Your task to perform on an android device: check data usage Image 0: 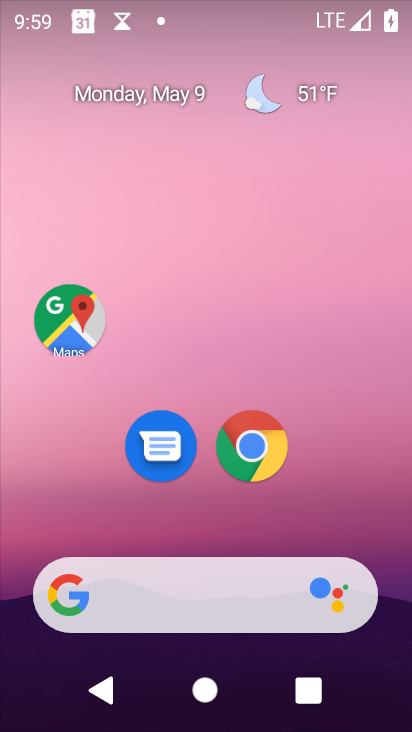
Step 0: drag from (310, 530) to (310, 90)
Your task to perform on an android device: check data usage Image 1: 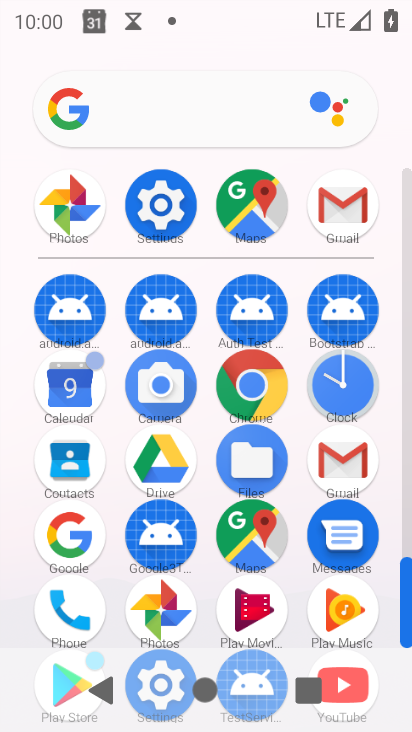
Step 1: click (171, 208)
Your task to perform on an android device: check data usage Image 2: 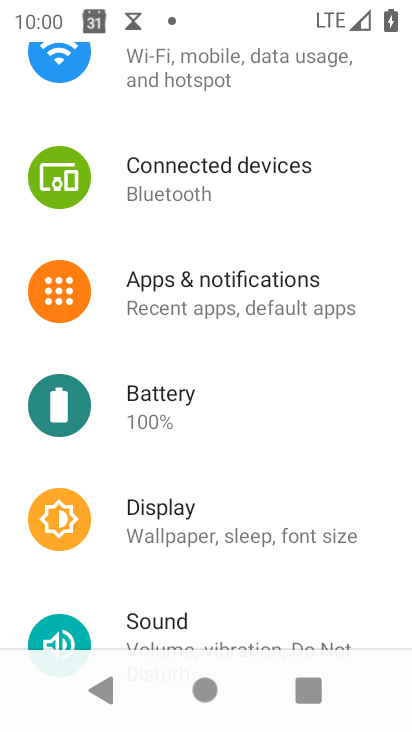
Step 2: drag from (280, 199) to (269, 410)
Your task to perform on an android device: check data usage Image 3: 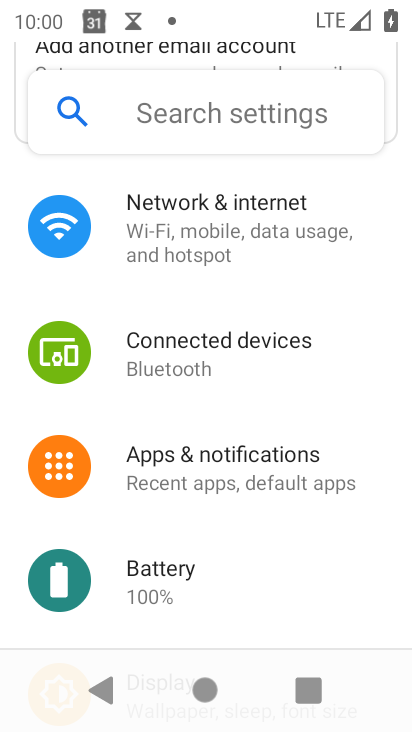
Step 3: click (214, 248)
Your task to perform on an android device: check data usage Image 4: 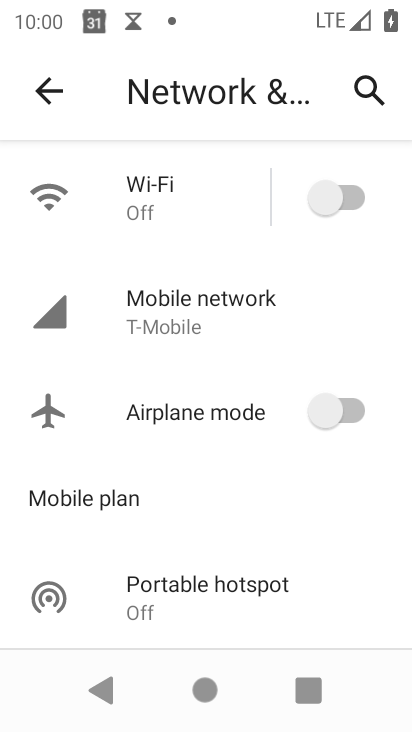
Step 4: click (202, 325)
Your task to perform on an android device: check data usage Image 5: 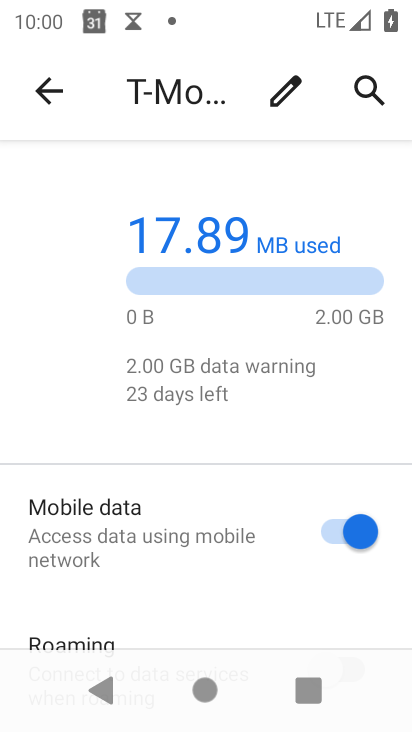
Step 5: drag from (240, 592) to (240, 241)
Your task to perform on an android device: check data usage Image 6: 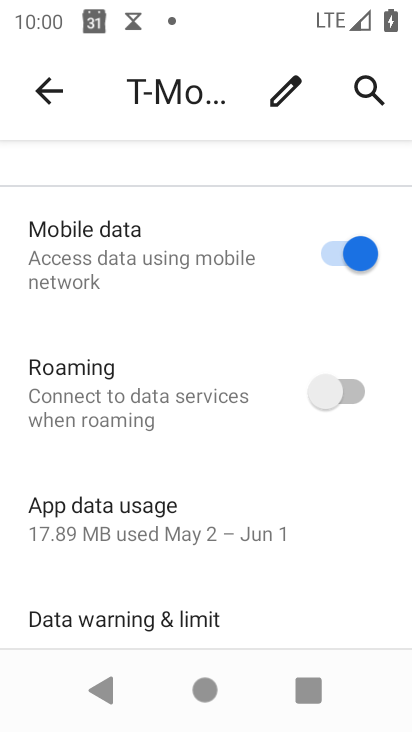
Step 6: click (203, 536)
Your task to perform on an android device: check data usage Image 7: 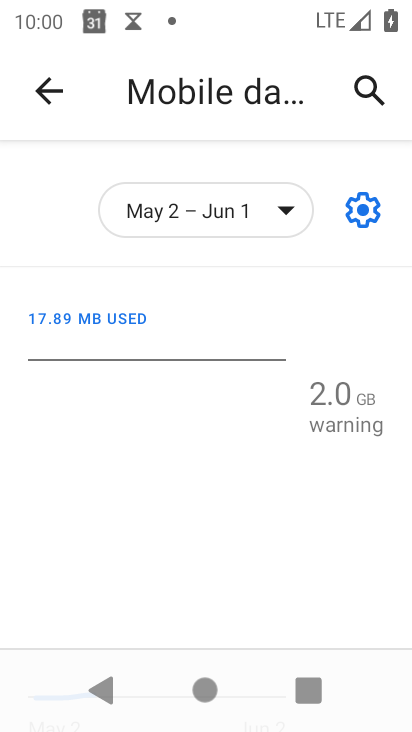
Step 7: task complete